Your task to perform on an android device: turn off airplane mode Image 0: 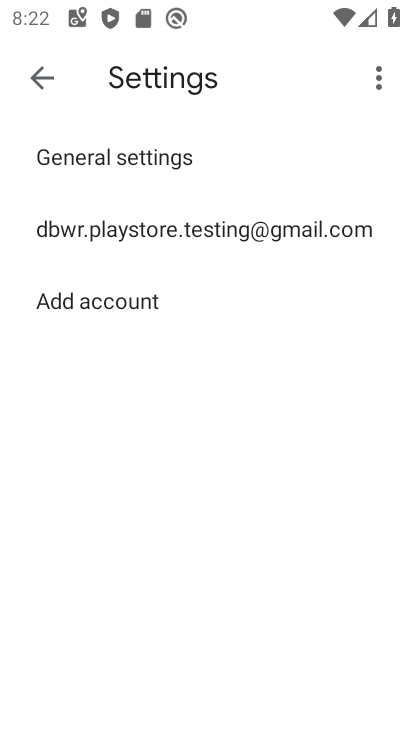
Step 0: press home button
Your task to perform on an android device: turn off airplane mode Image 1: 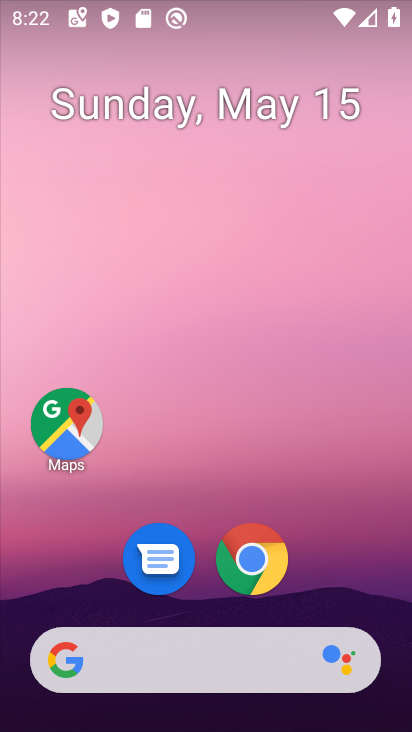
Step 1: drag from (354, 547) to (344, 61)
Your task to perform on an android device: turn off airplane mode Image 2: 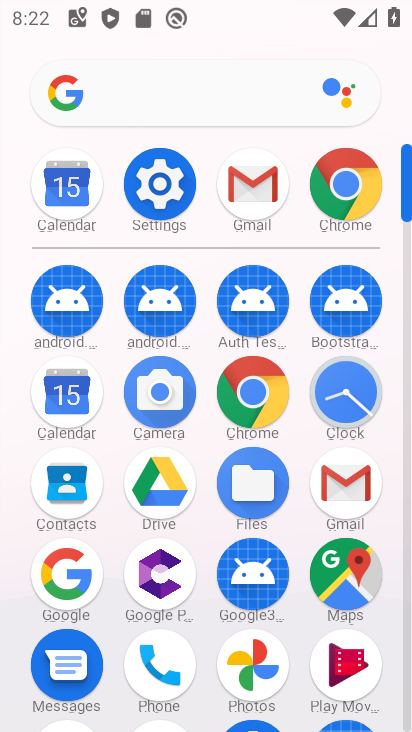
Step 2: click (177, 183)
Your task to perform on an android device: turn off airplane mode Image 3: 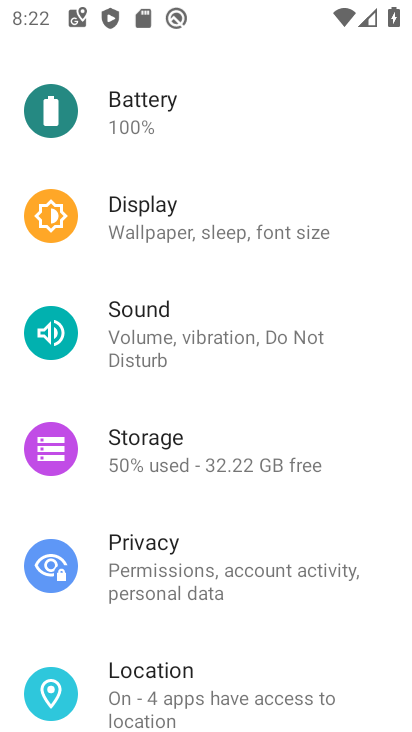
Step 3: drag from (255, 142) to (234, 565)
Your task to perform on an android device: turn off airplane mode Image 4: 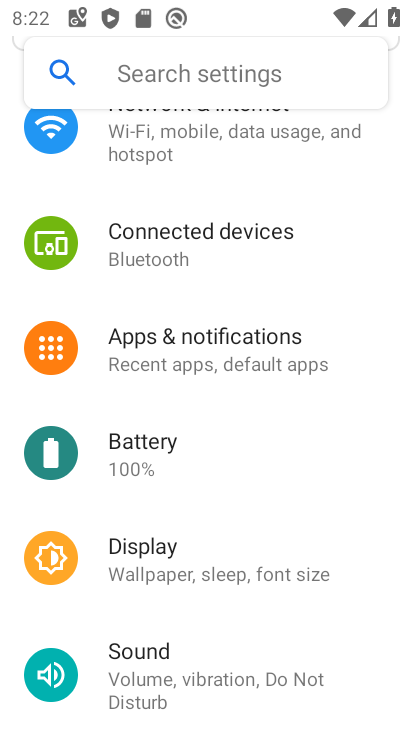
Step 4: click (250, 137)
Your task to perform on an android device: turn off airplane mode Image 5: 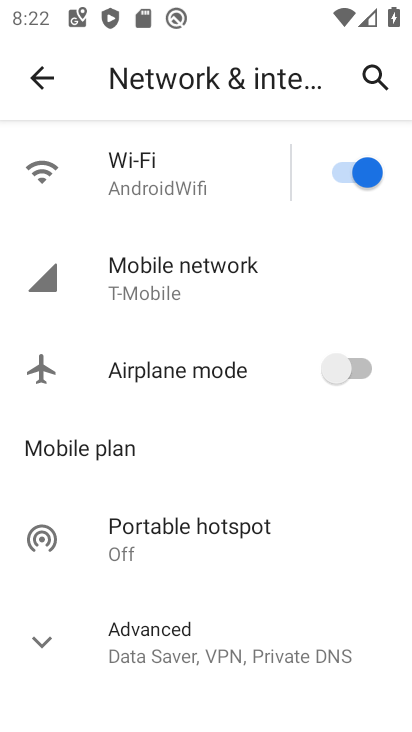
Step 5: click (348, 359)
Your task to perform on an android device: turn off airplane mode Image 6: 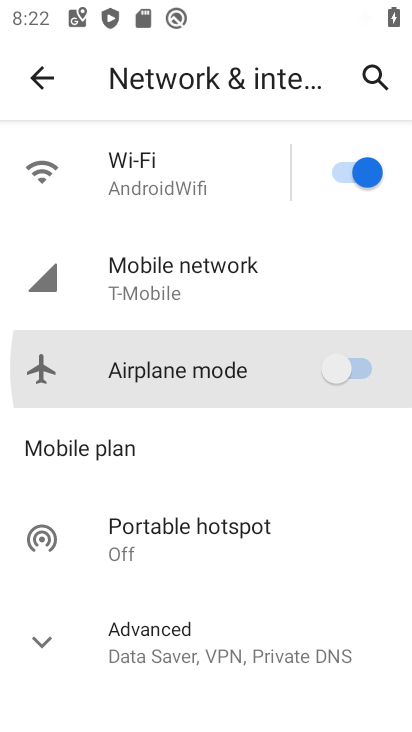
Step 6: click (348, 359)
Your task to perform on an android device: turn off airplane mode Image 7: 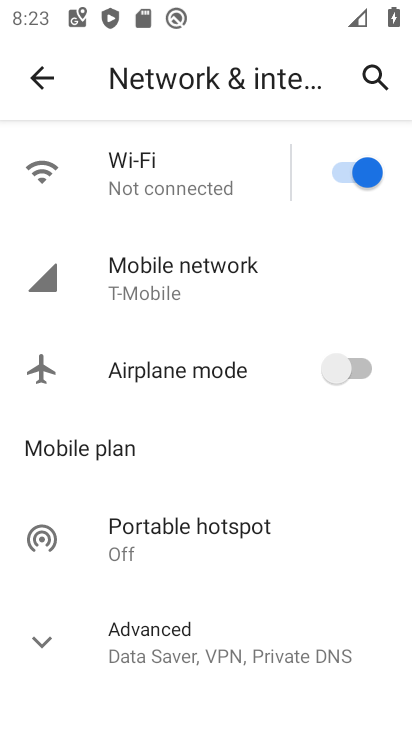
Step 7: task complete